Your task to perform on an android device: toggle sleep mode Image 0: 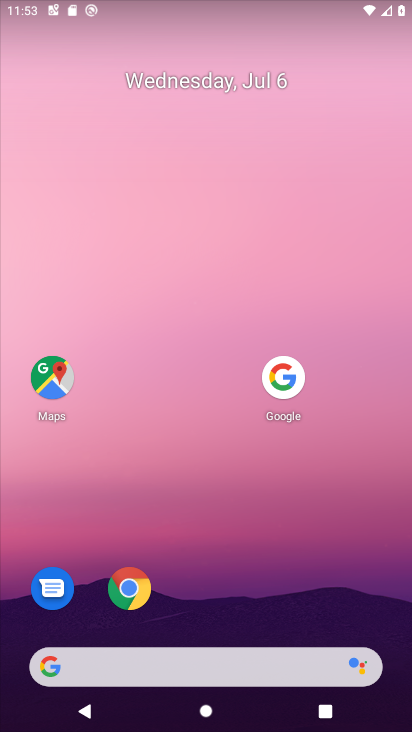
Step 0: drag from (240, 669) to (366, 8)
Your task to perform on an android device: toggle sleep mode Image 1: 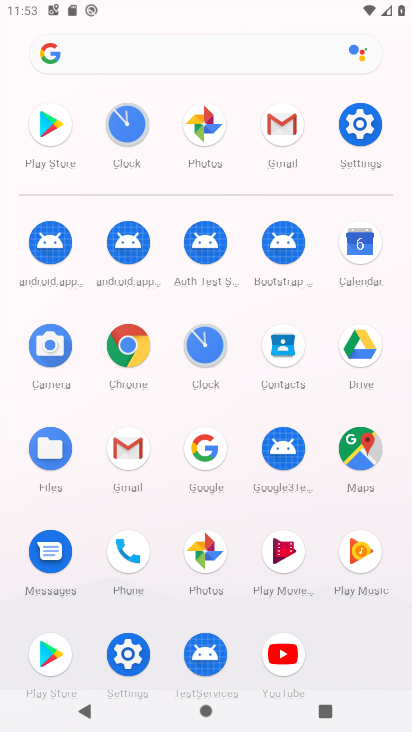
Step 1: click (357, 120)
Your task to perform on an android device: toggle sleep mode Image 2: 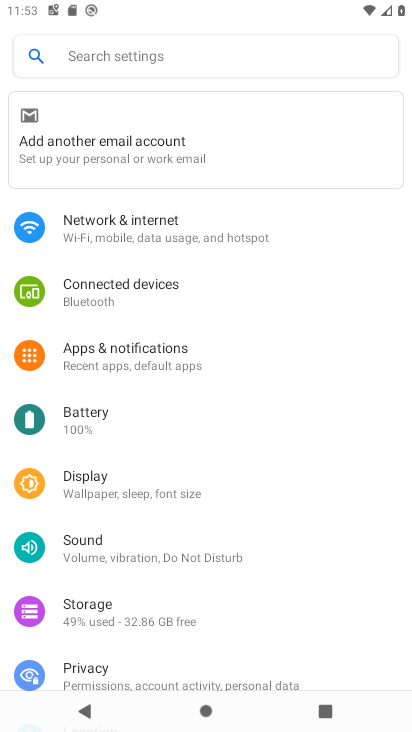
Step 2: click (162, 485)
Your task to perform on an android device: toggle sleep mode Image 3: 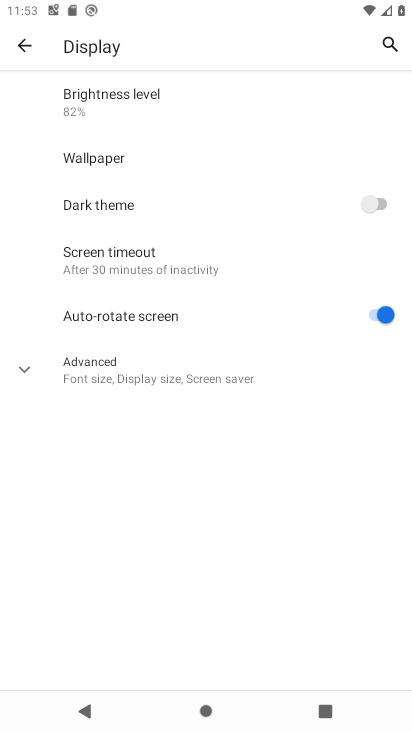
Step 3: click (110, 366)
Your task to perform on an android device: toggle sleep mode Image 4: 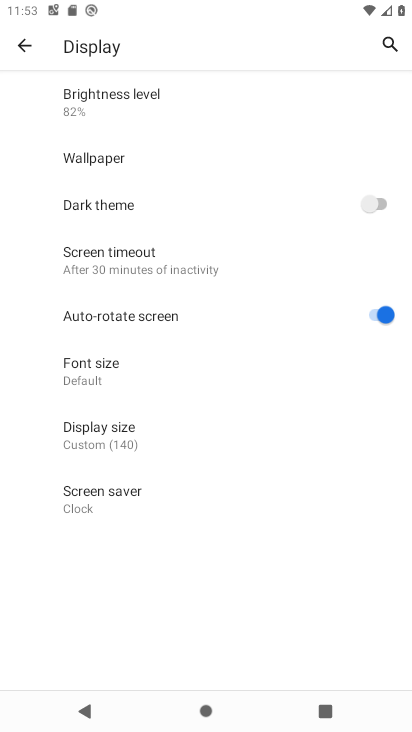
Step 4: task complete